Your task to perform on an android device: Open CNN.com Image 0: 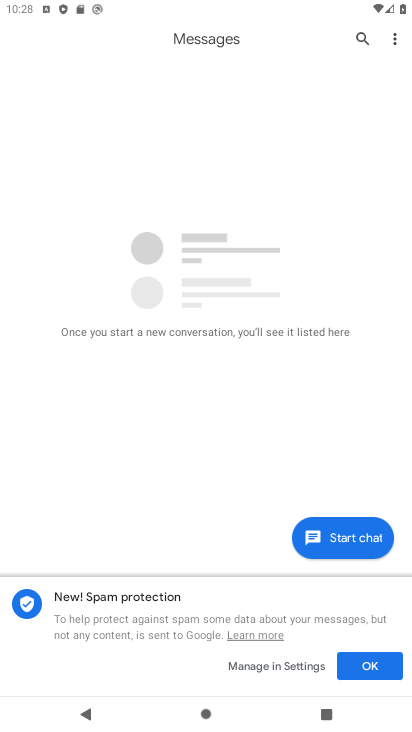
Step 0: task complete